Your task to perform on an android device: Go to calendar. Show me events next week Image 0: 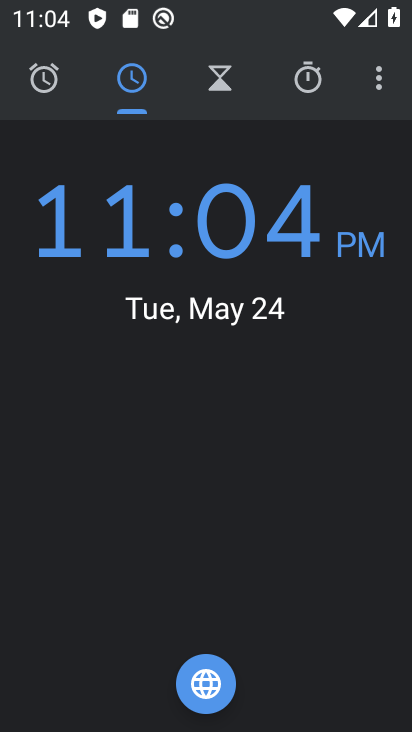
Step 0: press home button
Your task to perform on an android device: Go to calendar. Show me events next week Image 1: 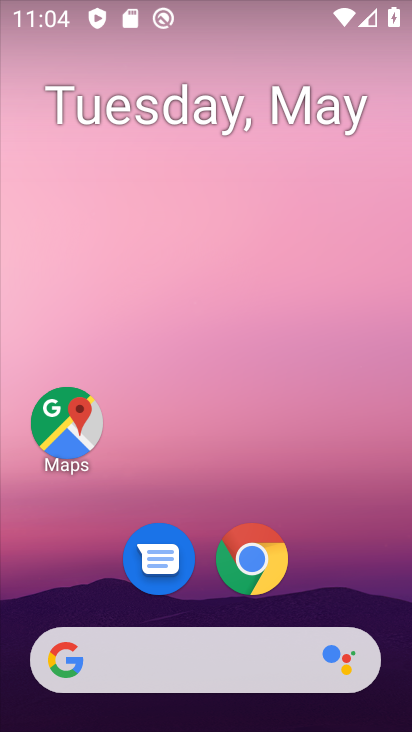
Step 1: drag from (340, 582) to (225, 85)
Your task to perform on an android device: Go to calendar. Show me events next week Image 2: 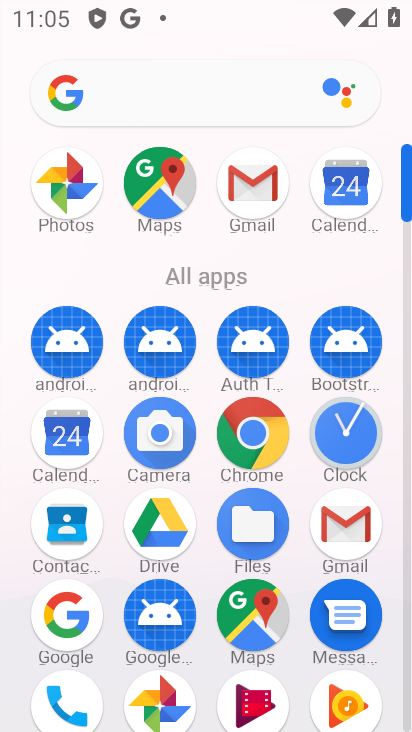
Step 2: click (56, 448)
Your task to perform on an android device: Go to calendar. Show me events next week Image 3: 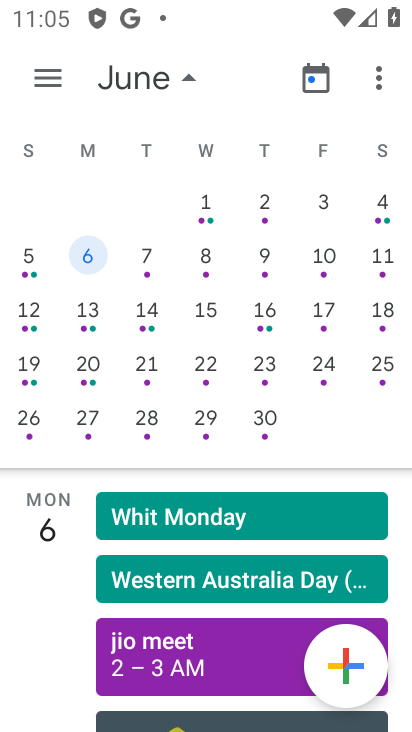
Step 3: click (143, 320)
Your task to perform on an android device: Go to calendar. Show me events next week Image 4: 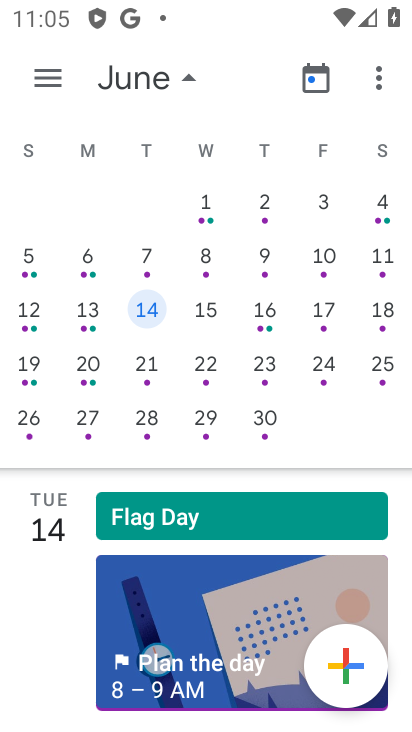
Step 4: task complete